Your task to perform on an android device: turn off airplane mode Image 0: 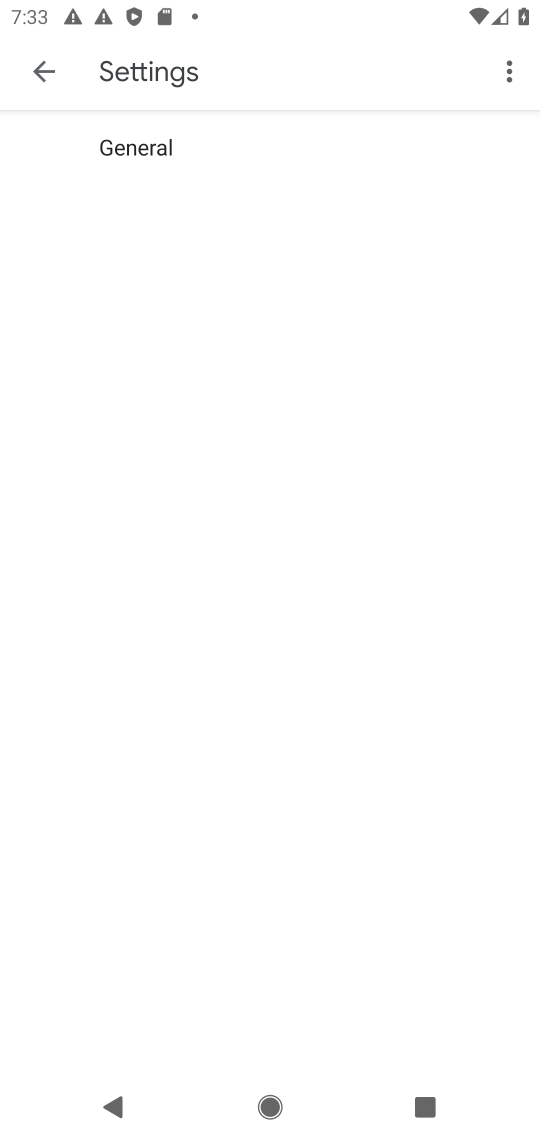
Step 0: press home button
Your task to perform on an android device: turn off airplane mode Image 1: 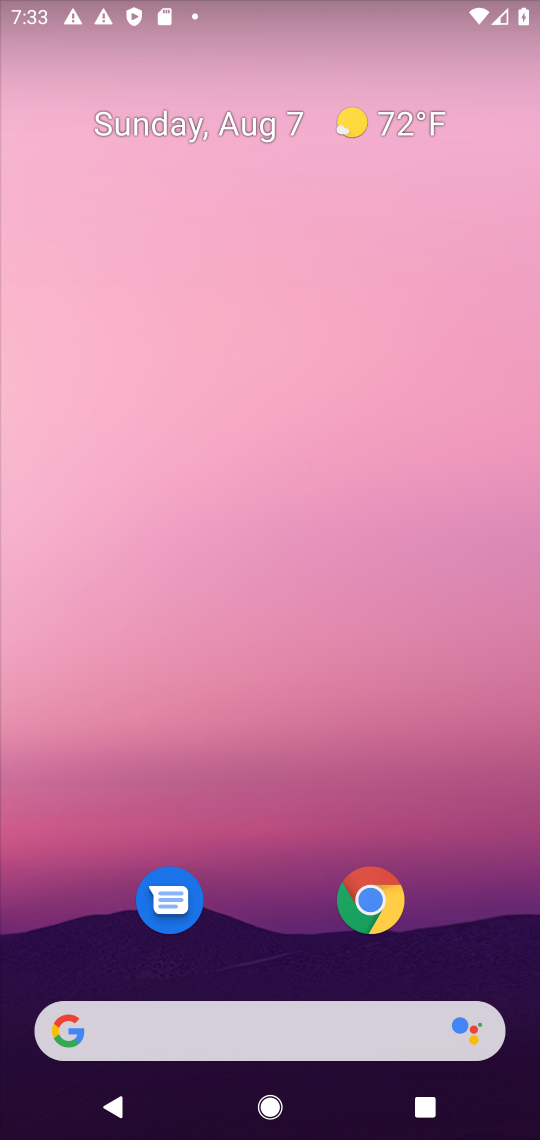
Step 1: drag from (239, 978) to (398, 84)
Your task to perform on an android device: turn off airplane mode Image 2: 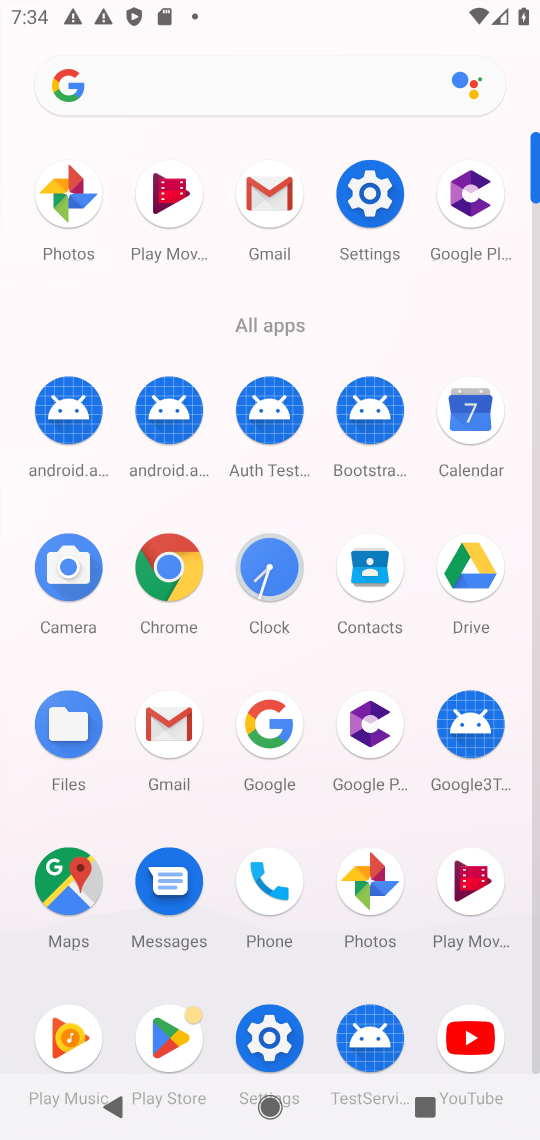
Step 2: click (374, 196)
Your task to perform on an android device: turn off airplane mode Image 3: 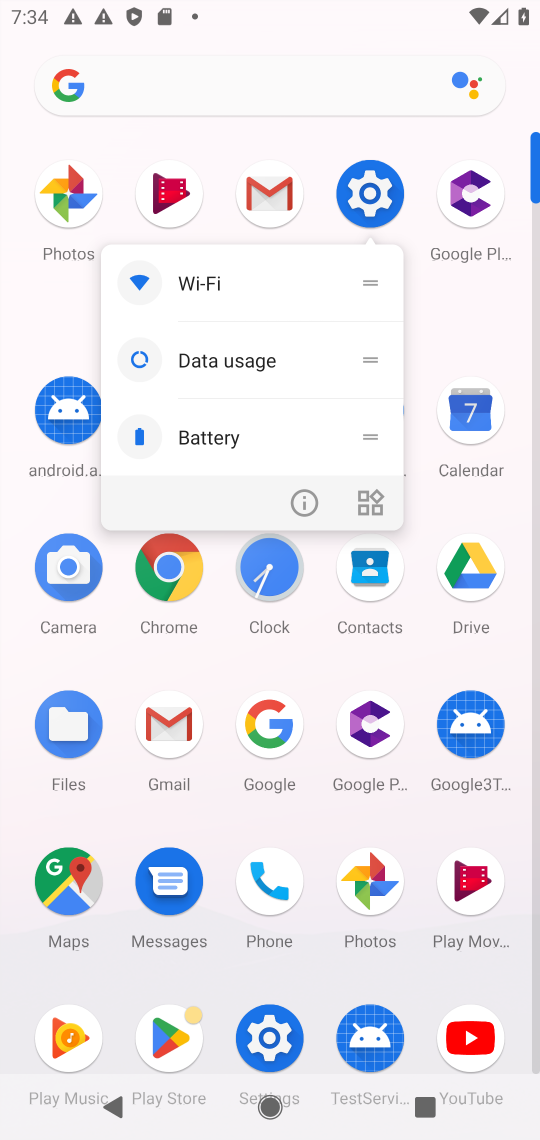
Step 3: click (373, 197)
Your task to perform on an android device: turn off airplane mode Image 4: 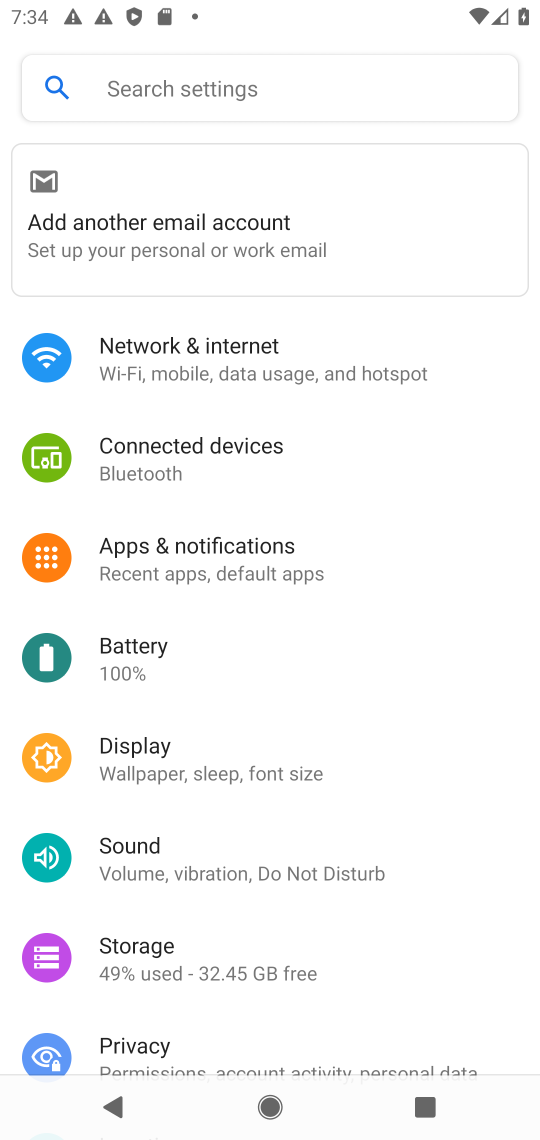
Step 4: click (234, 354)
Your task to perform on an android device: turn off airplane mode Image 5: 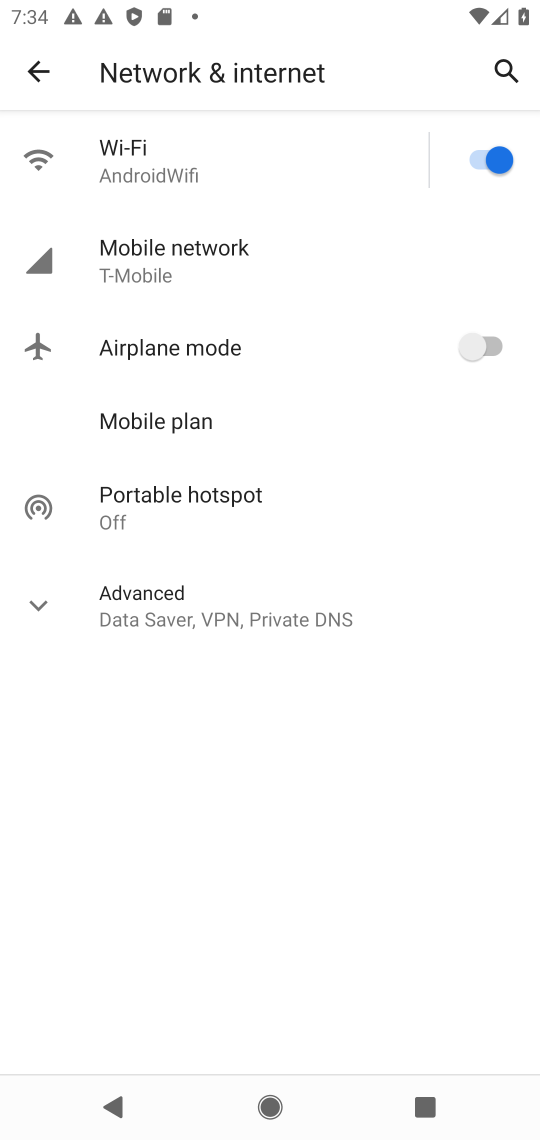
Step 5: task complete